Your task to perform on an android device: Open the stopwatch Image 0: 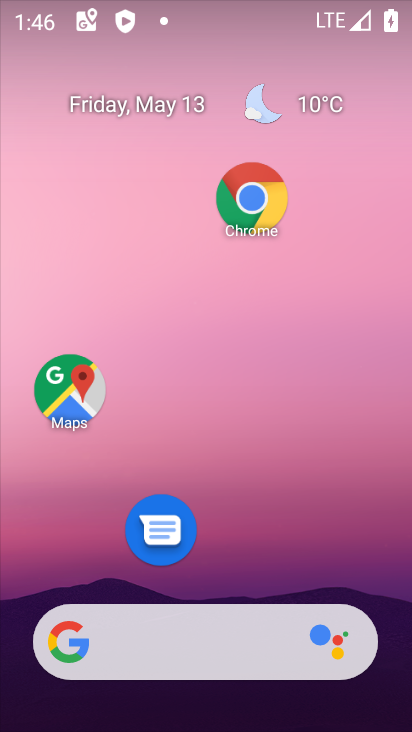
Step 0: drag from (246, 598) to (154, 25)
Your task to perform on an android device: Open the stopwatch Image 1: 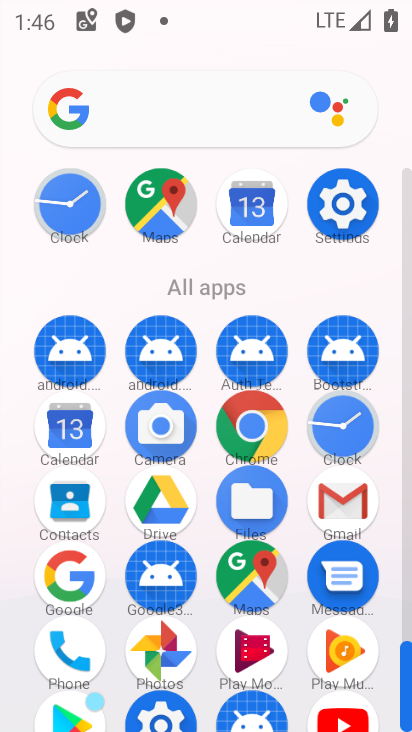
Step 1: click (355, 440)
Your task to perform on an android device: Open the stopwatch Image 2: 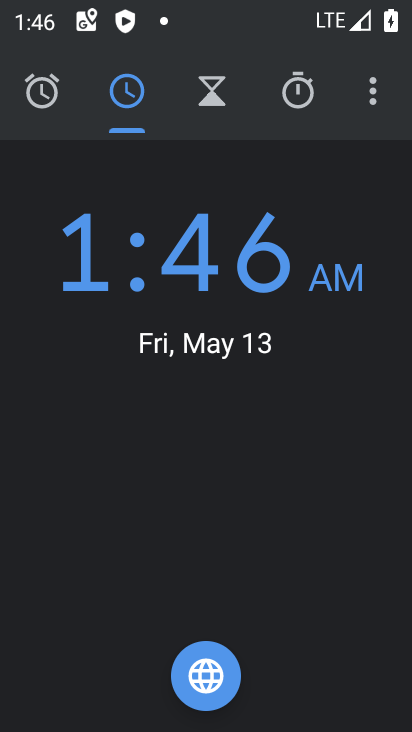
Step 2: click (294, 83)
Your task to perform on an android device: Open the stopwatch Image 3: 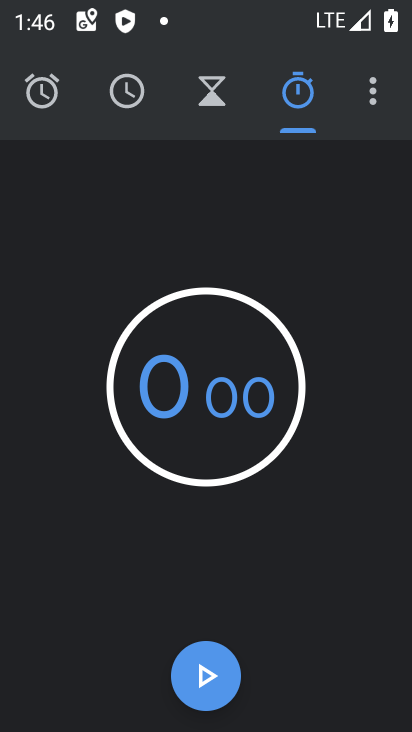
Step 3: task complete